Your task to perform on an android device: open chrome privacy settings Image 0: 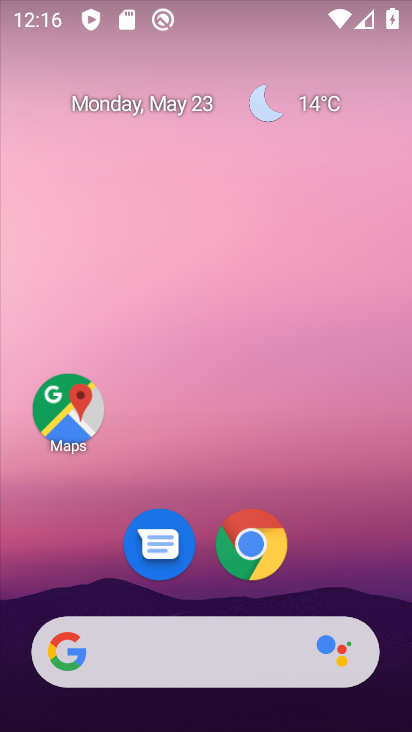
Step 0: drag from (336, 467) to (309, 93)
Your task to perform on an android device: open chrome privacy settings Image 1: 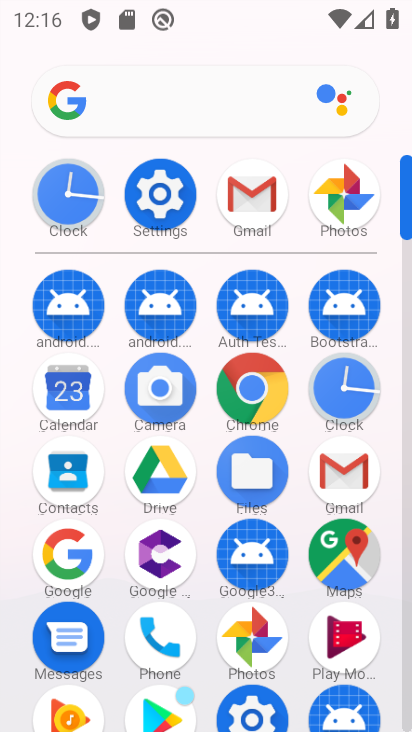
Step 1: click (262, 401)
Your task to perform on an android device: open chrome privacy settings Image 2: 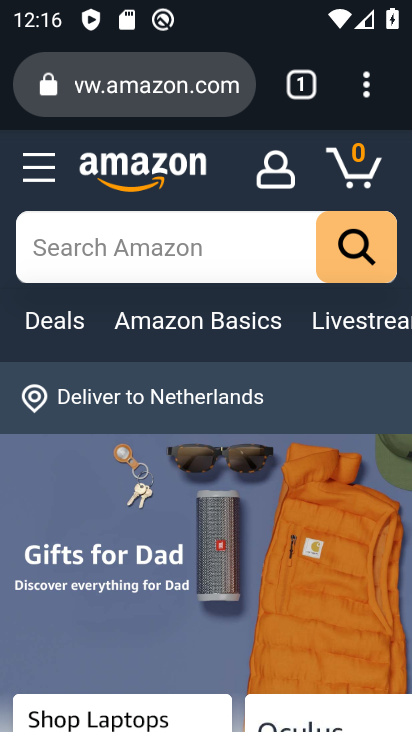
Step 2: drag from (378, 80) to (162, 595)
Your task to perform on an android device: open chrome privacy settings Image 3: 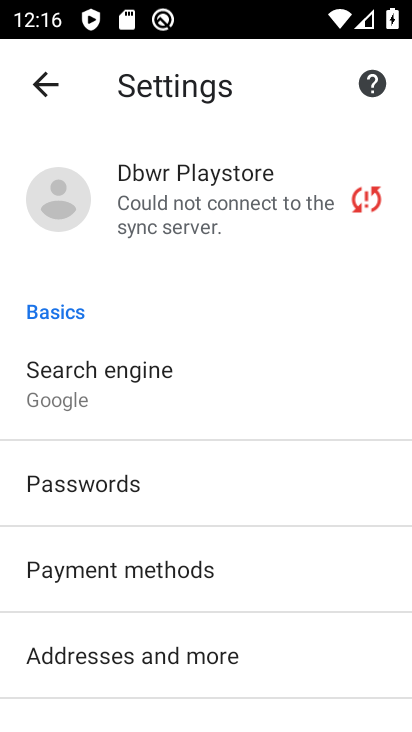
Step 3: drag from (215, 653) to (190, 194)
Your task to perform on an android device: open chrome privacy settings Image 4: 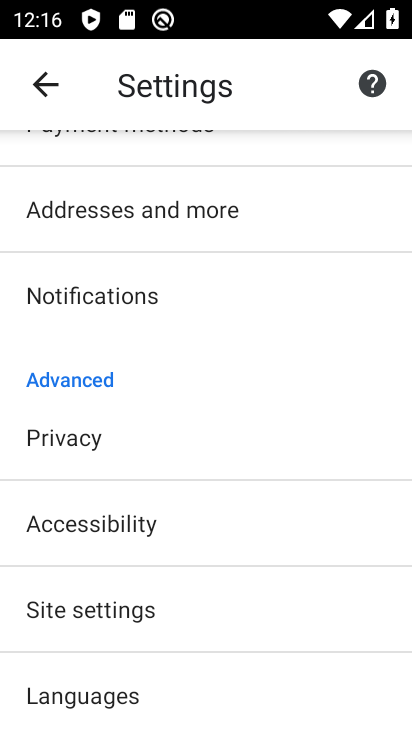
Step 4: drag from (179, 605) to (261, 139)
Your task to perform on an android device: open chrome privacy settings Image 5: 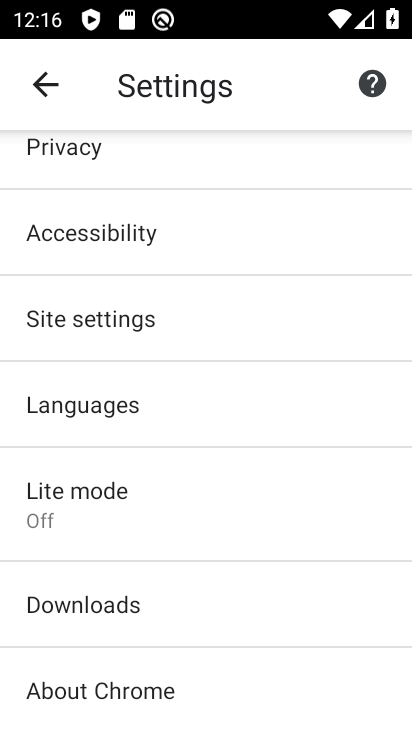
Step 5: drag from (244, 553) to (246, 197)
Your task to perform on an android device: open chrome privacy settings Image 6: 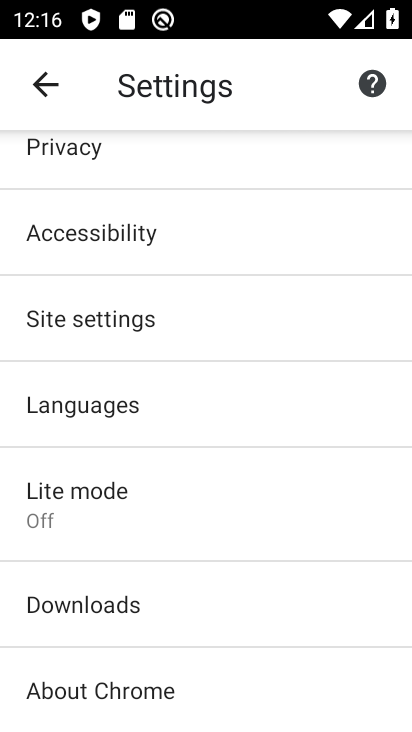
Step 6: click (134, 325)
Your task to perform on an android device: open chrome privacy settings Image 7: 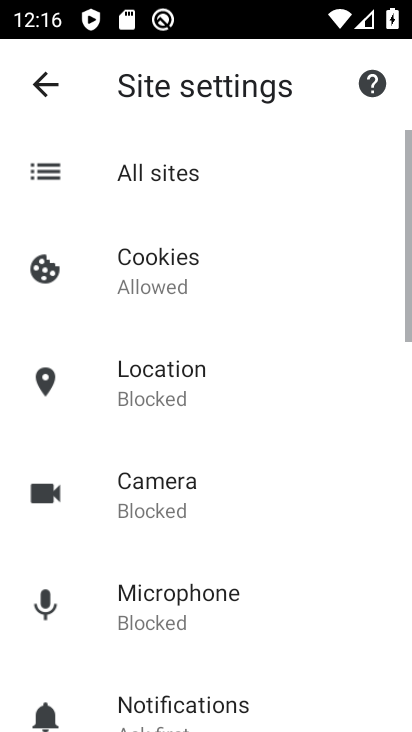
Step 7: drag from (265, 662) to (213, 200)
Your task to perform on an android device: open chrome privacy settings Image 8: 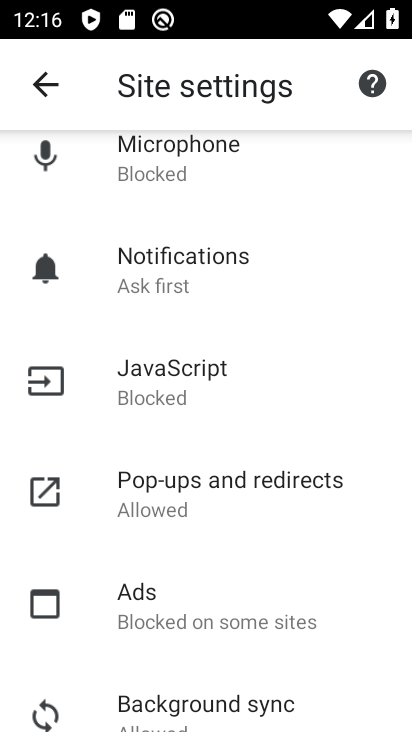
Step 8: drag from (273, 617) to (285, 201)
Your task to perform on an android device: open chrome privacy settings Image 9: 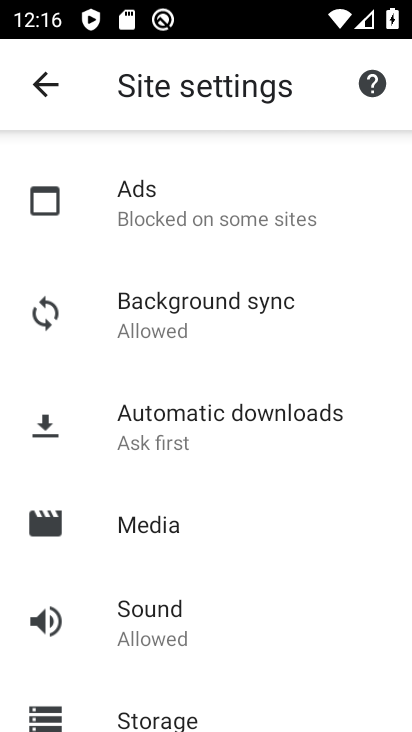
Step 9: drag from (302, 580) to (215, 224)
Your task to perform on an android device: open chrome privacy settings Image 10: 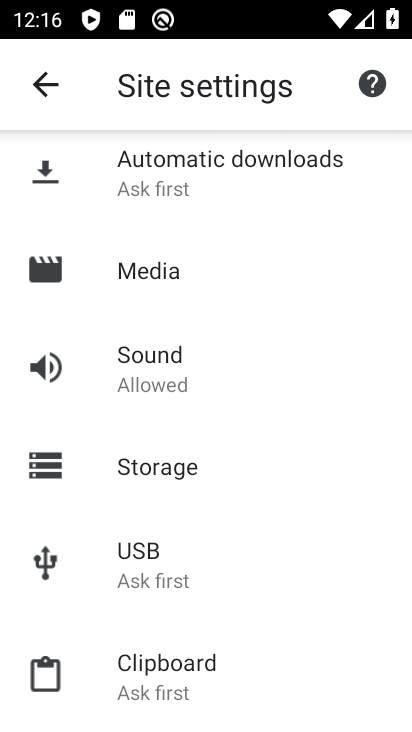
Step 10: drag from (264, 514) to (227, 152)
Your task to perform on an android device: open chrome privacy settings Image 11: 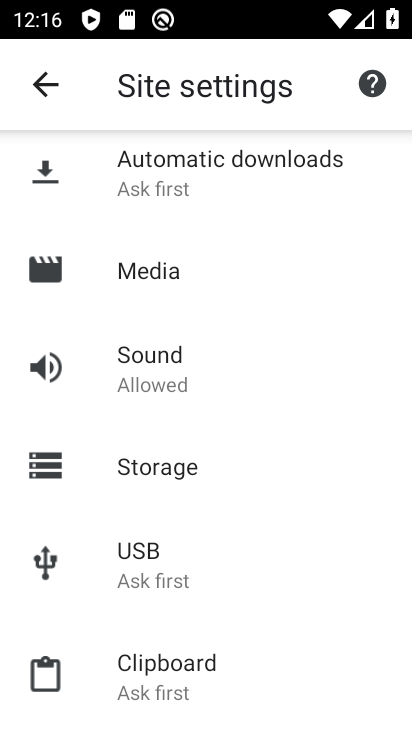
Step 11: drag from (243, 228) to (266, 686)
Your task to perform on an android device: open chrome privacy settings Image 12: 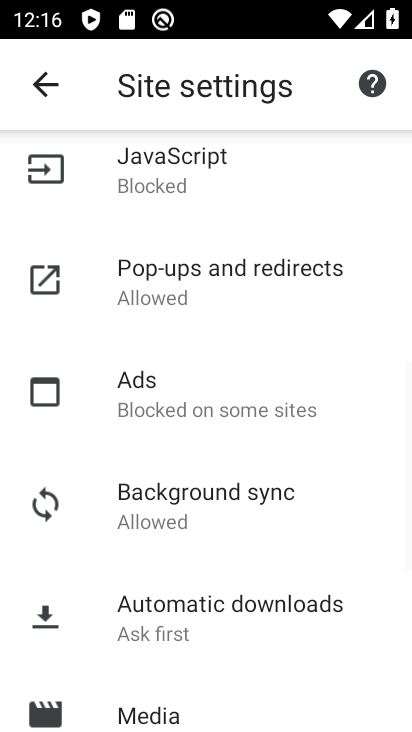
Step 12: drag from (226, 285) to (302, 674)
Your task to perform on an android device: open chrome privacy settings Image 13: 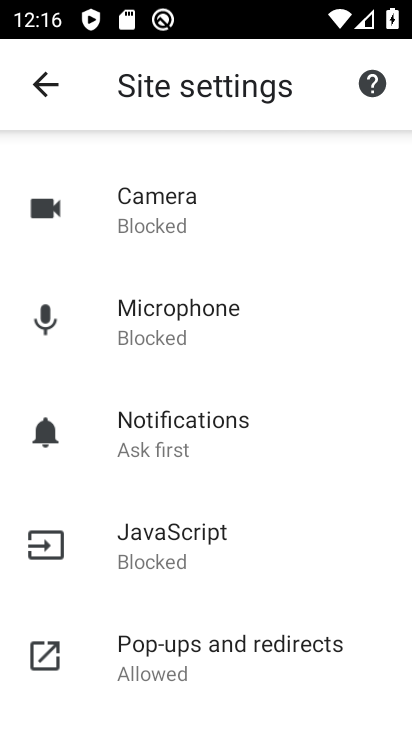
Step 13: click (40, 73)
Your task to perform on an android device: open chrome privacy settings Image 14: 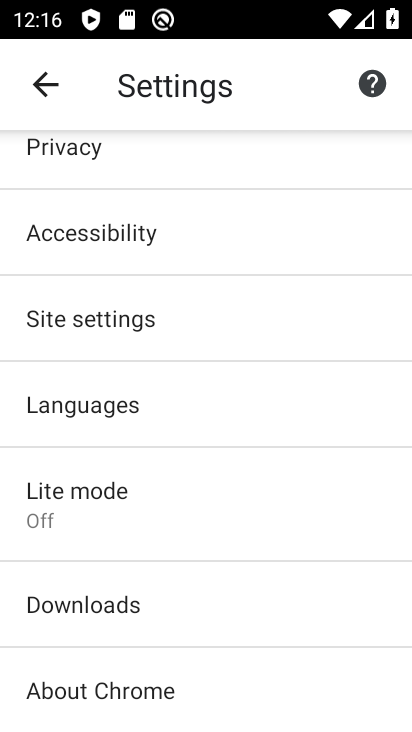
Step 14: click (105, 161)
Your task to perform on an android device: open chrome privacy settings Image 15: 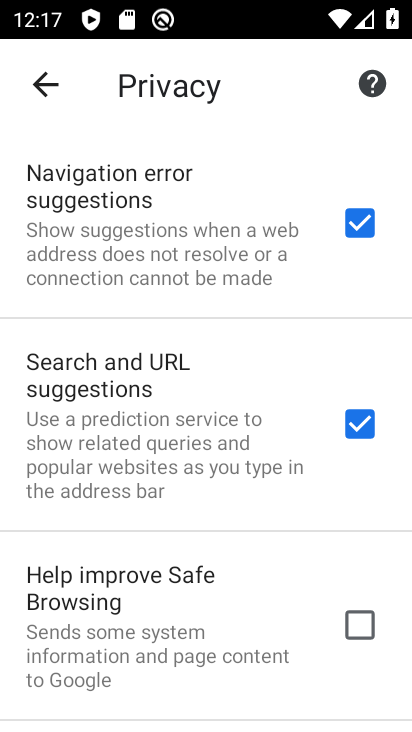
Step 15: task complete